Your task to perform on an android device: change text size in settings app Image 0: 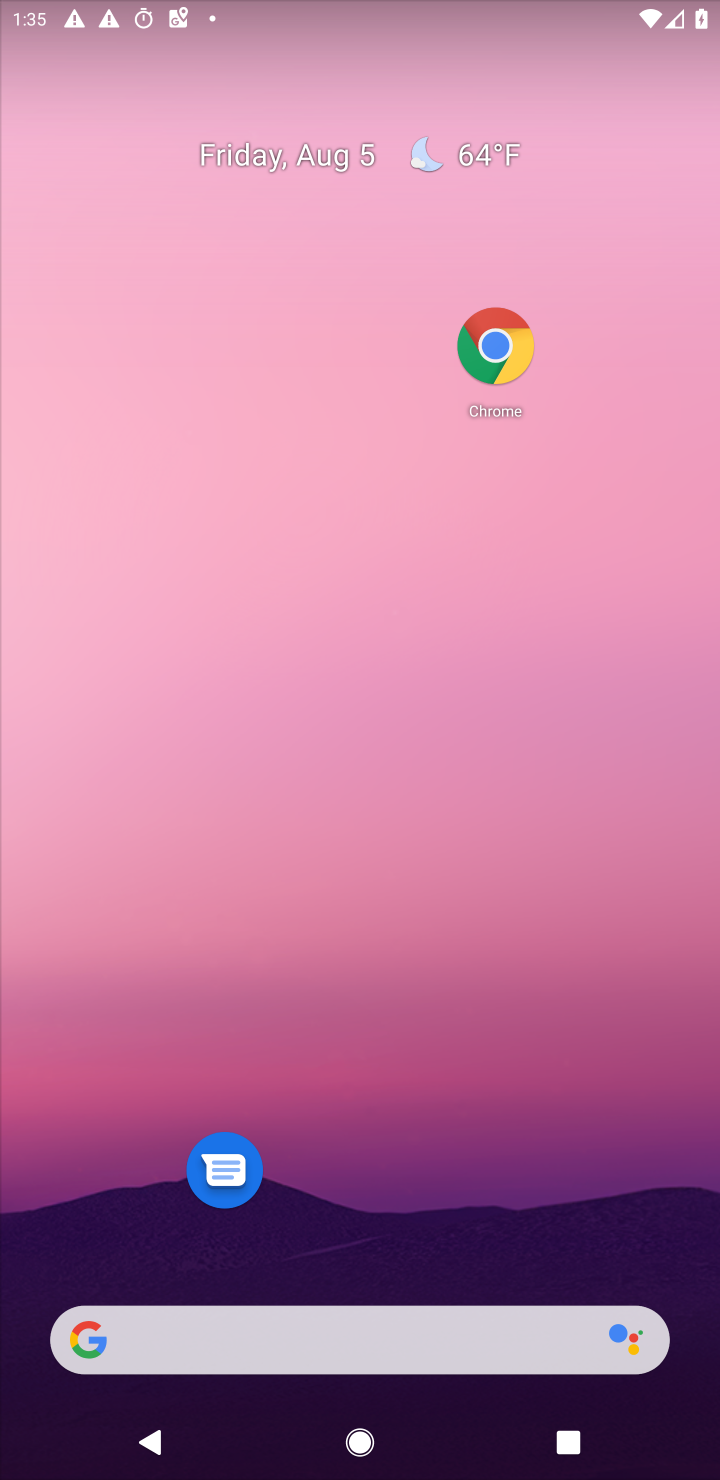
Step 0: drag from (412, 1215) to (307, 81)
Your task to perform on an android device: change text size in settings app Image 1: 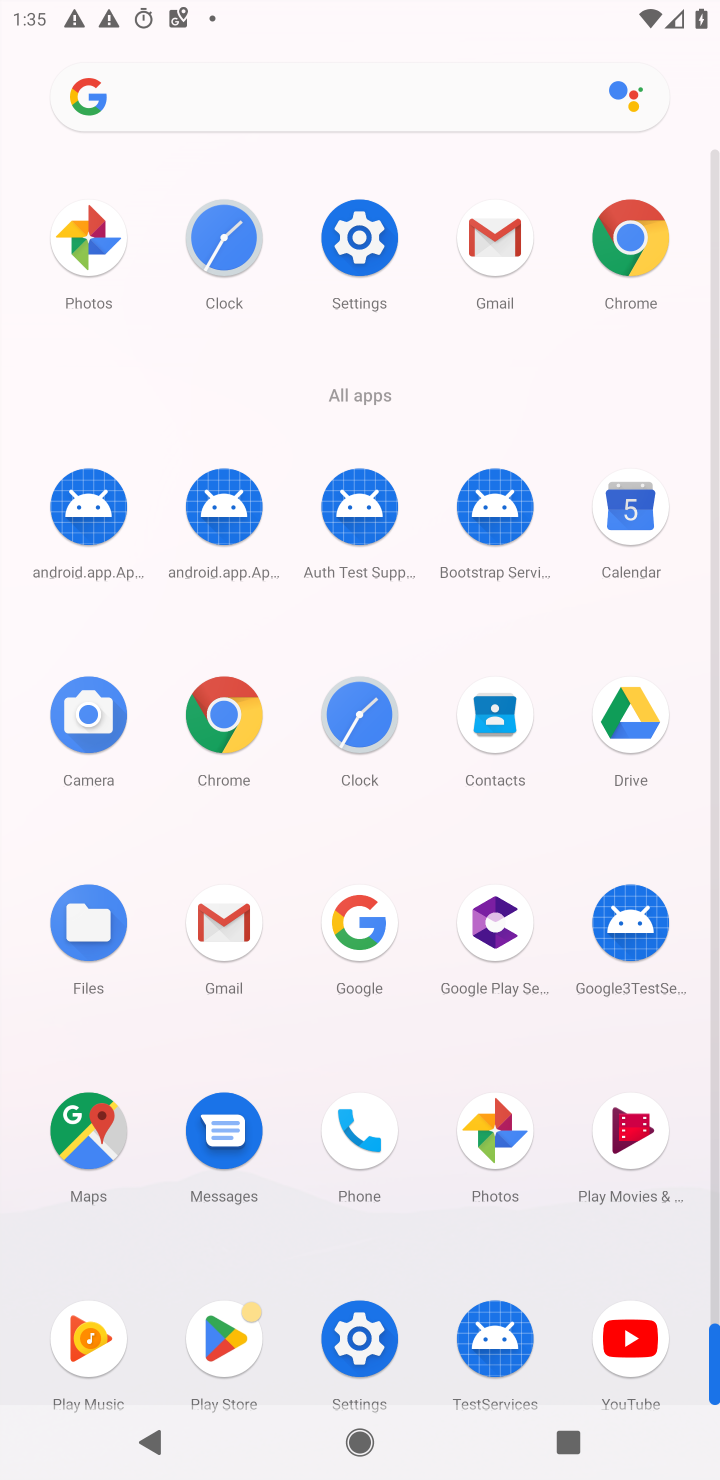
Step 1: click (383, 1342)
Your task to perform on an android device: change text size in settings app Image 2: 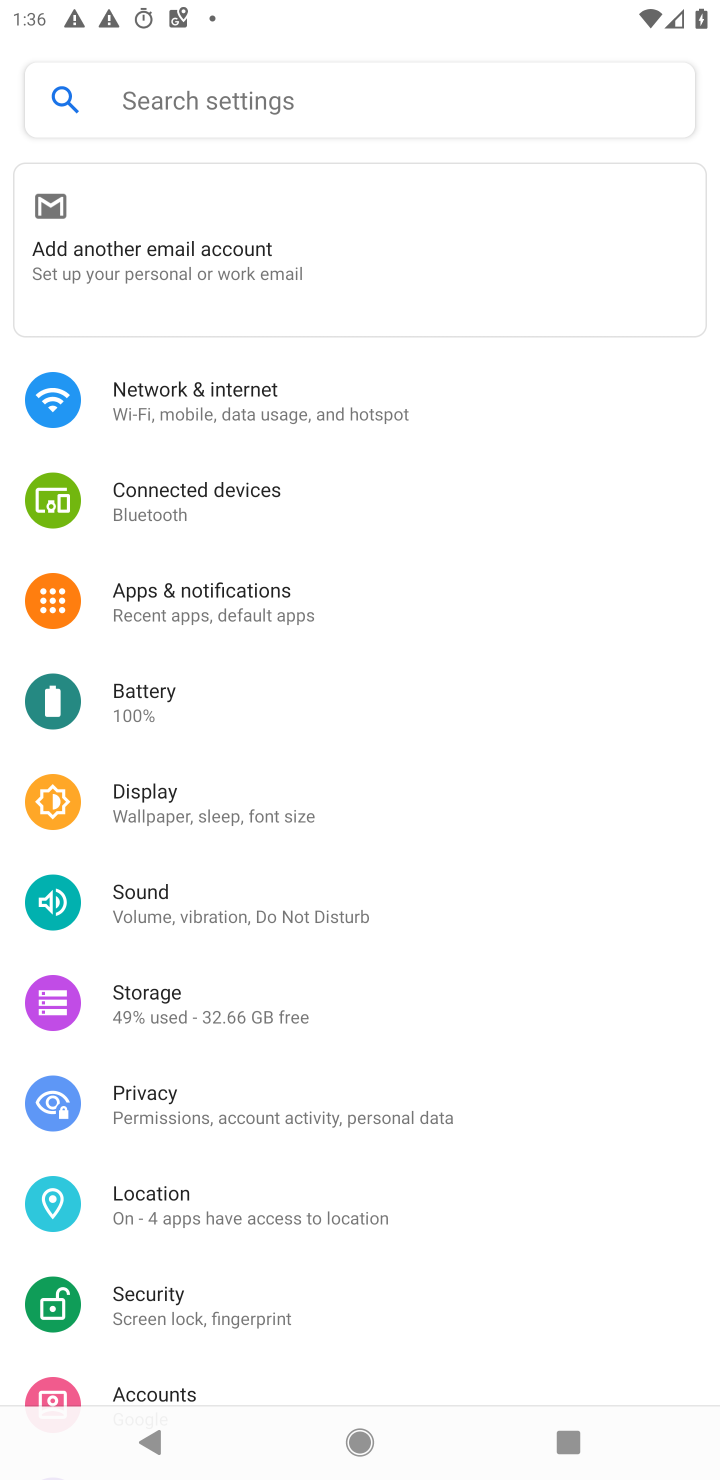
Step 2: click (301, 828)
Your task to perform on an android device: change text size in settings app Image 3: 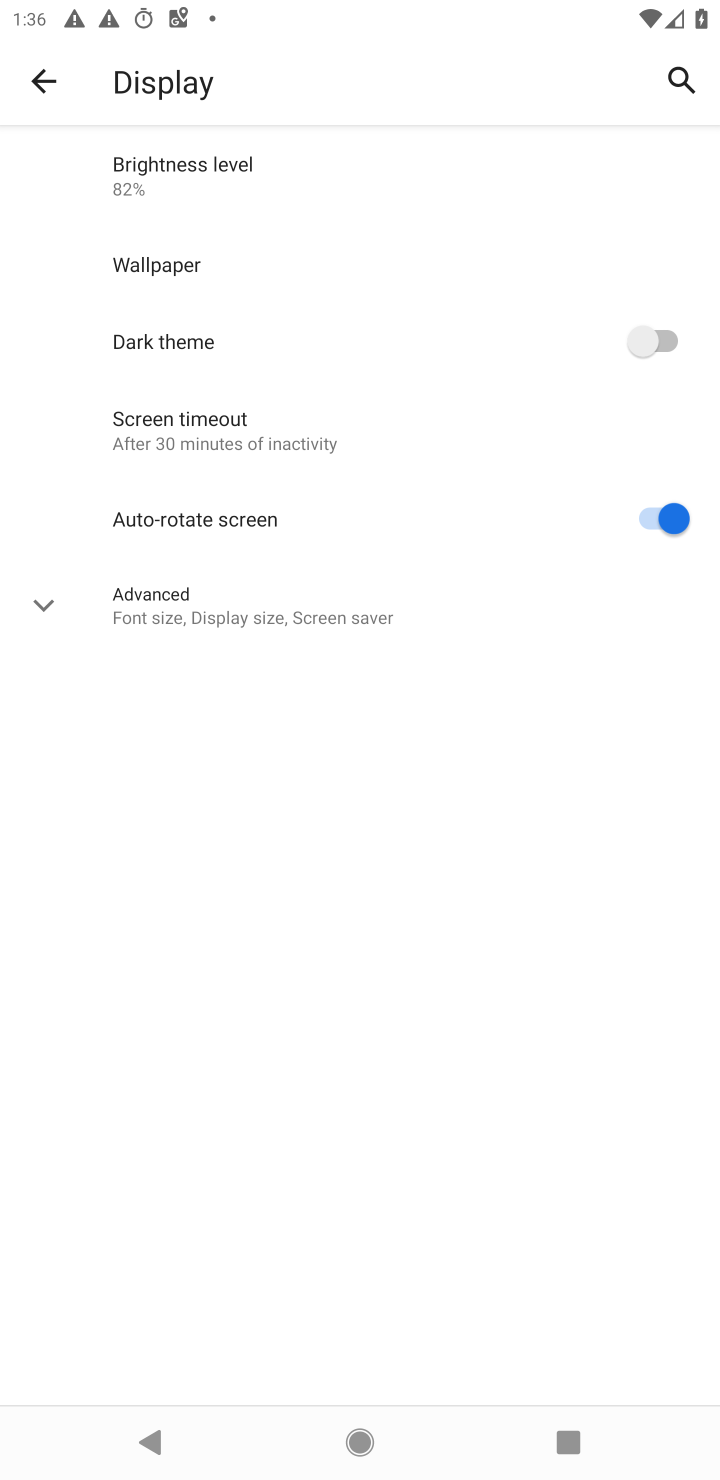
Step 3: click (241, 643)
Your task to perform on an android device: change text size in settings app Image 4: 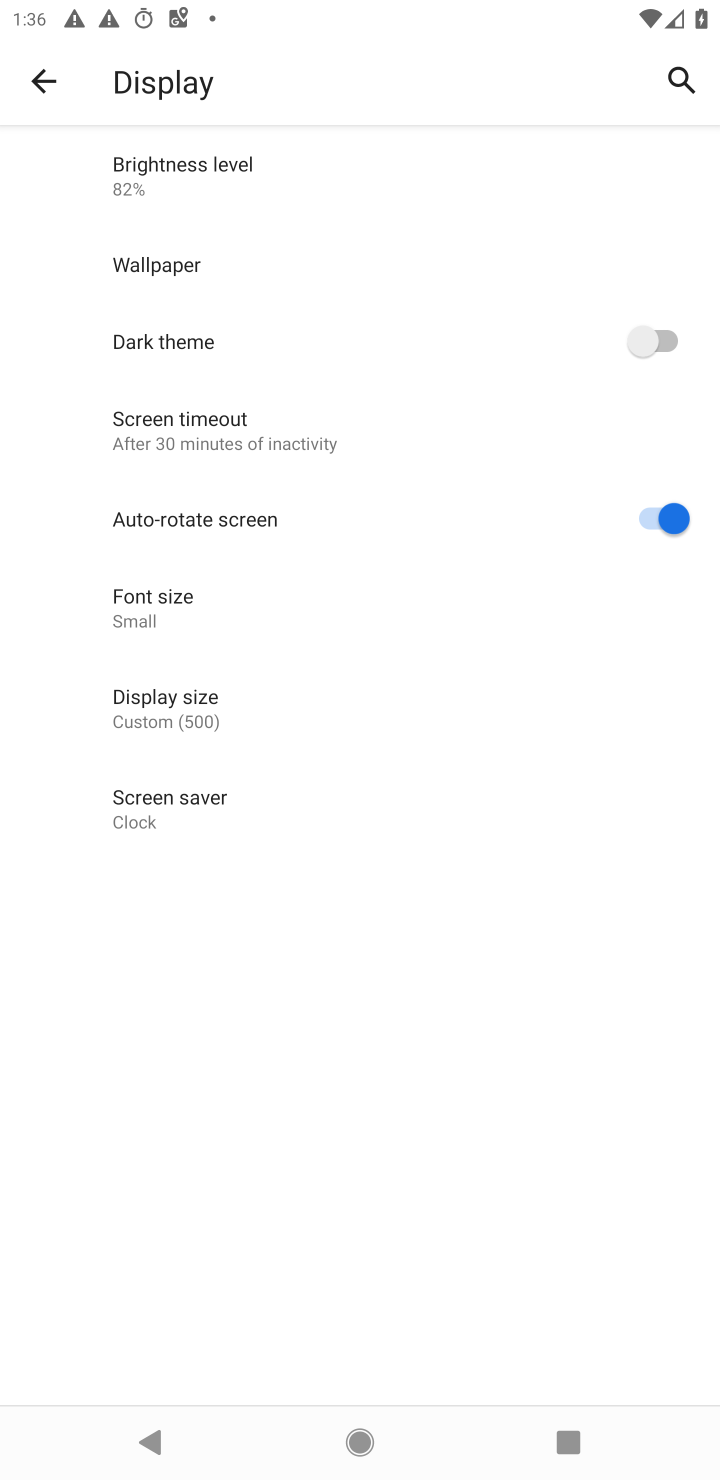
Step 4: click (237, 612)
Your task to perform on an android device: change text size in settings app Image 5: 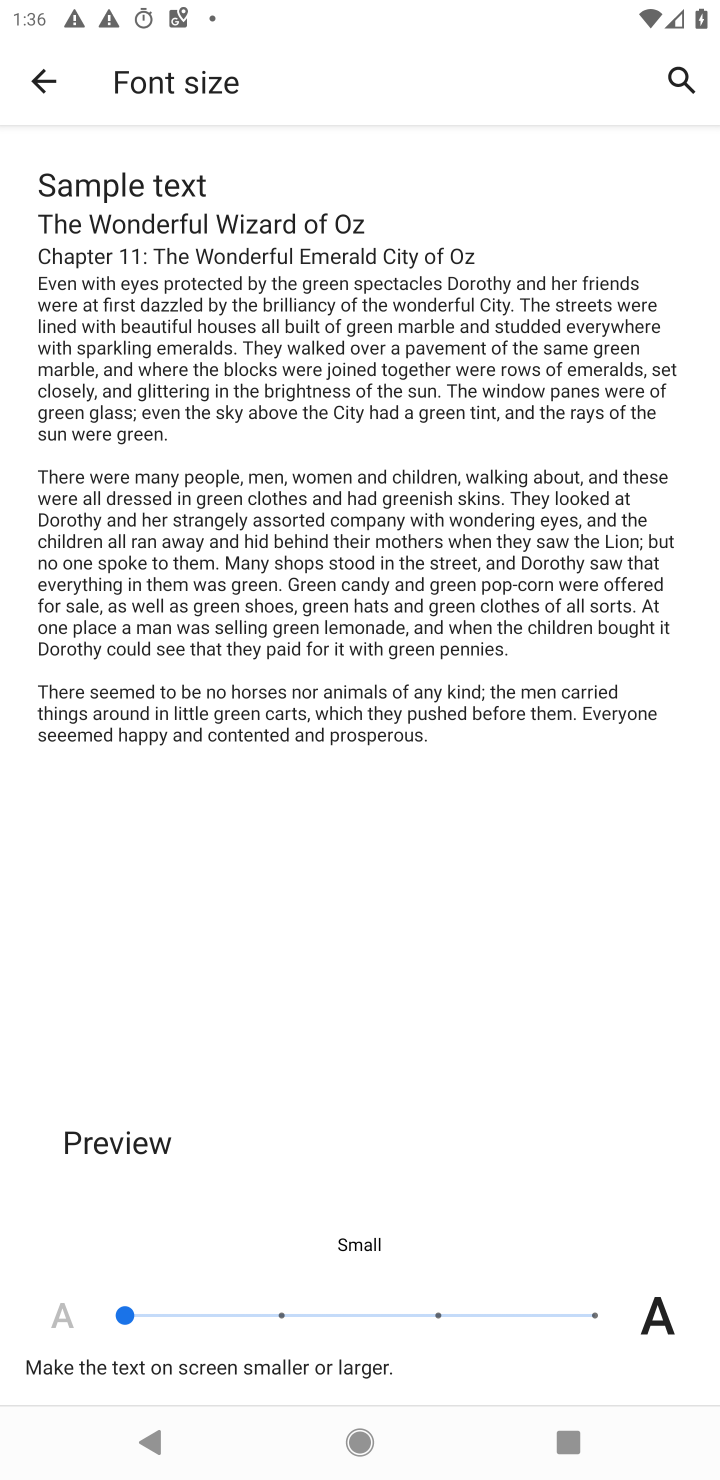
Step 5: click (272, 1328)
Your task to perform on an android device: change text size in settings app Image 6: 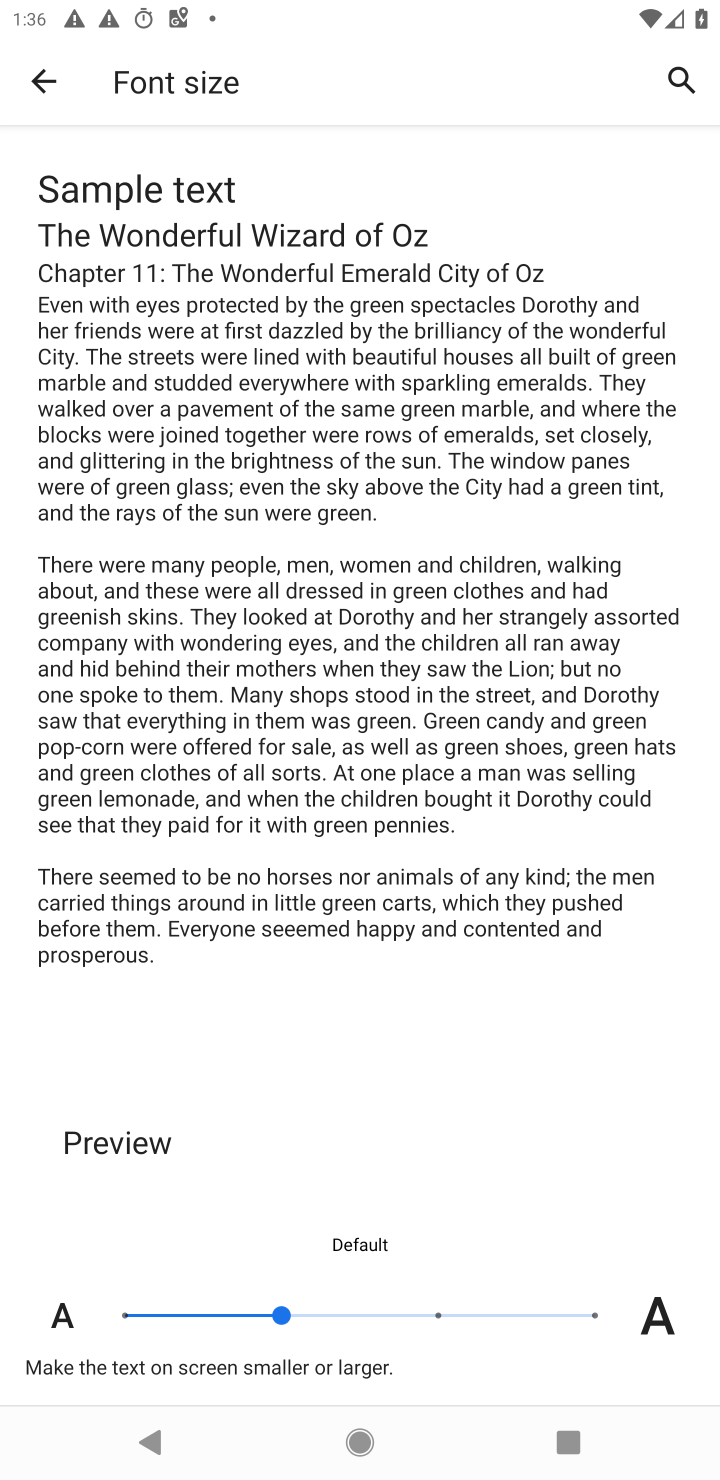
Step 6: task complete